Your task to perform on an android device: turn off data saver in the chrome app Image 0: 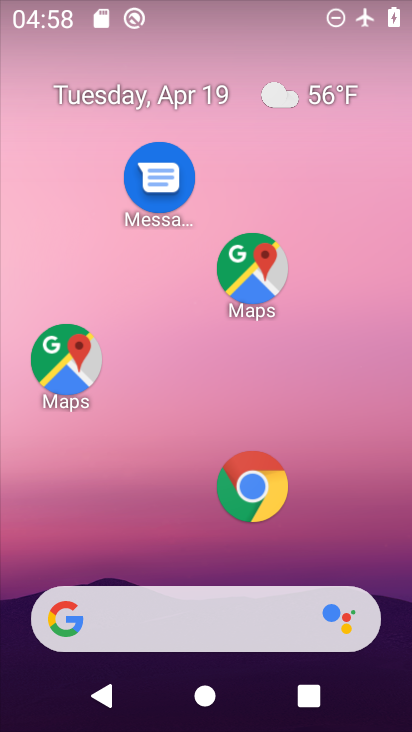
Step 0: click (276, 503)
Your task to perform on an android device: turn off data saver in the chrome app Image 1: 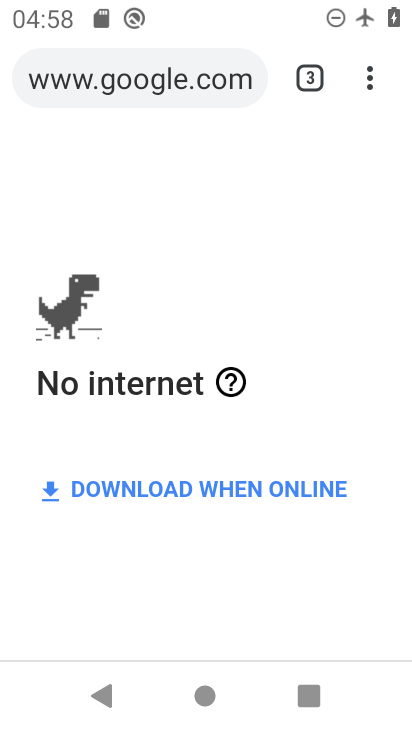
Step 1: click (376, 65)
Your task to perform on an android device: turn off data saver in the chrome app Image 2: 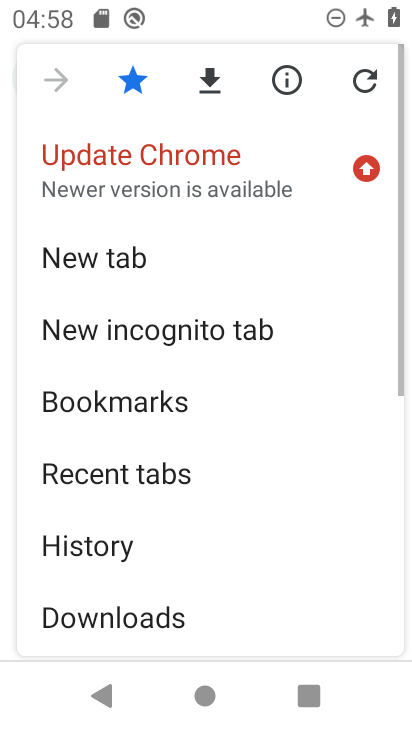
Step 2: drag from (221, 566) to (286, 206)
Your task to perform on an android device: turn off data saver in the chrome app Image 3: 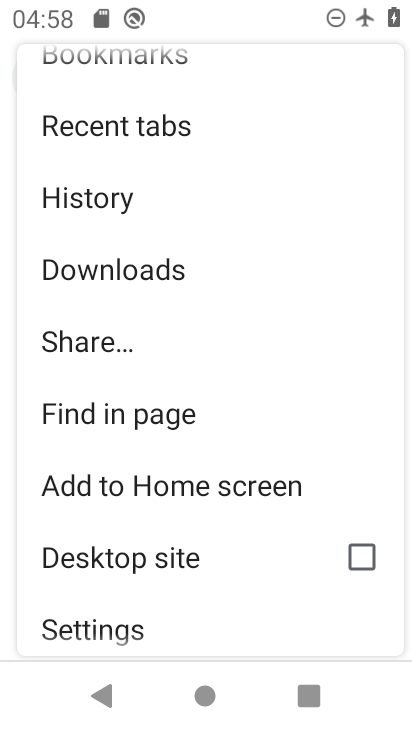
Step 3: click (176, 629)
Your task to perform on an android device: turn off data saver in the chrome app Image 4: 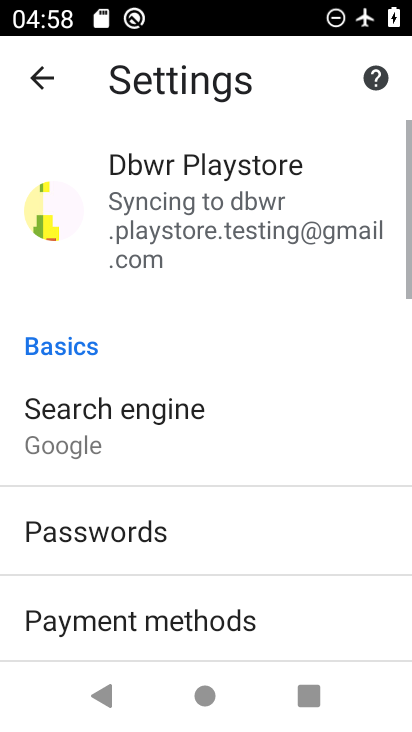
Step 4: task complete